Your task to perform on an android device: Open the phone app and click the voicemail tab. Image 0: 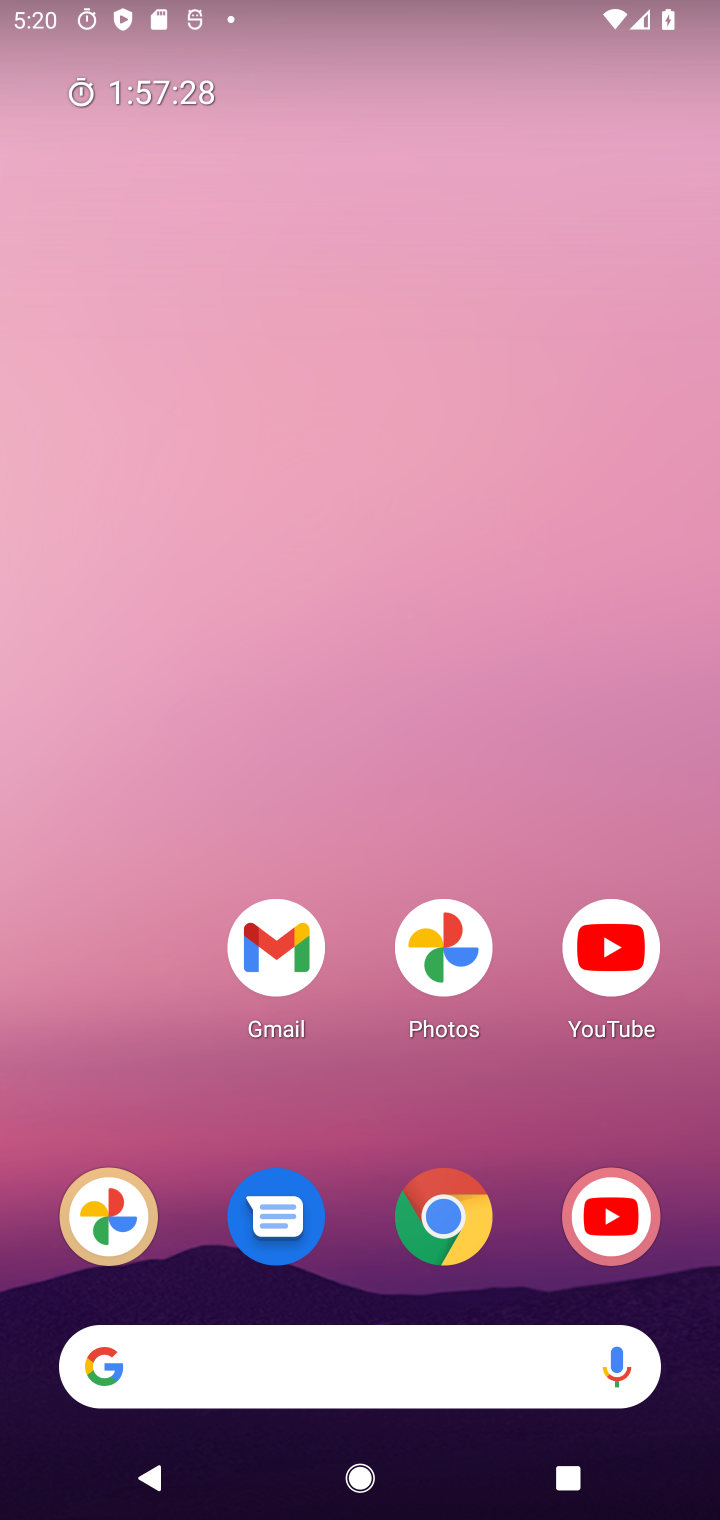
Step 0: drag from (184, 570) to (319, 182)
Your task to perform on an android device: Open the phone app and click the voicemail tab. Image 1: 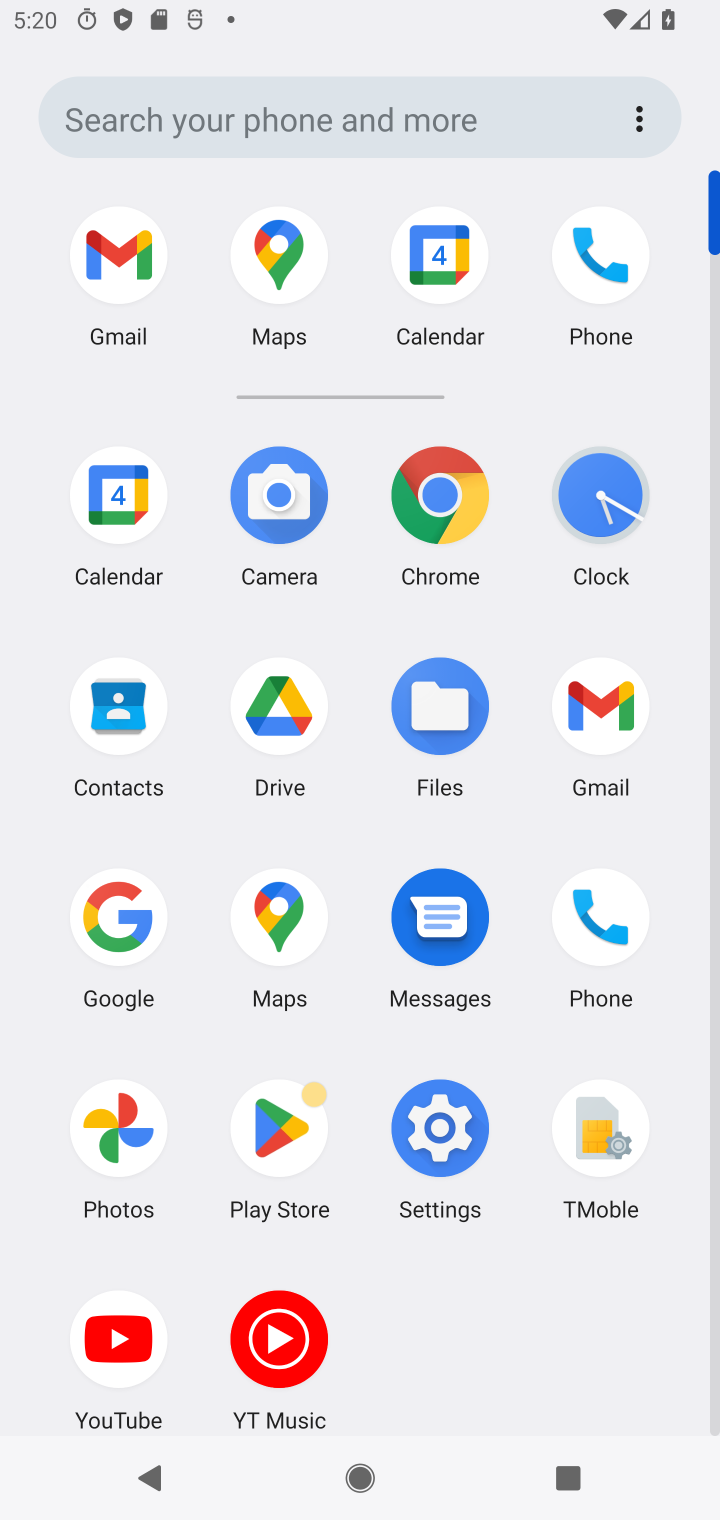
Step 1: click (589, 920)
Your task to perform on an android device: Open the phone app and click the voicemail tab. Image 2: 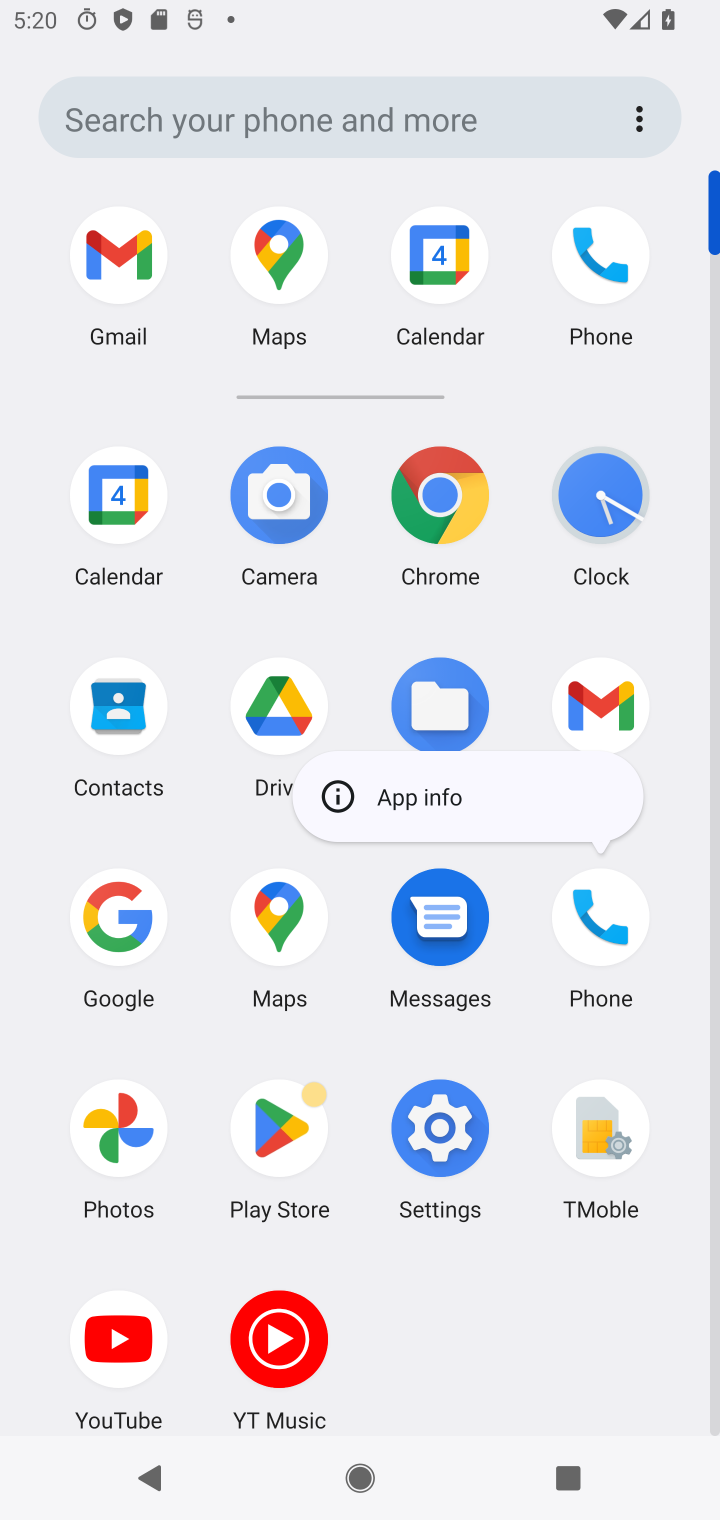
Step 2: click (595, 924)
Your task to perform on an android device: Open the phone app and click the voicemail tab. Image 3: 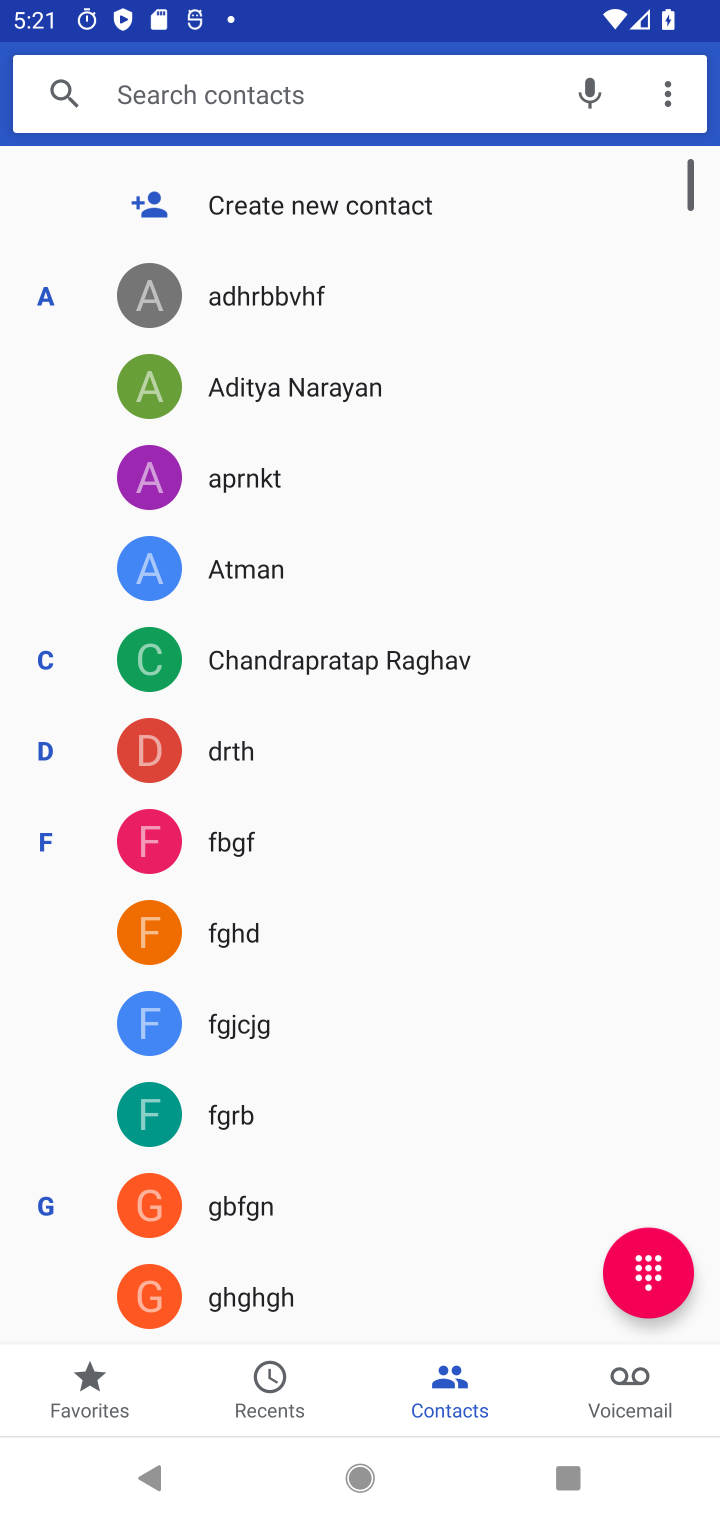
Step 3: click (620, 1397)
Your task to perform on an android device: Open the phone app and click the voicemail tab. Image 4: 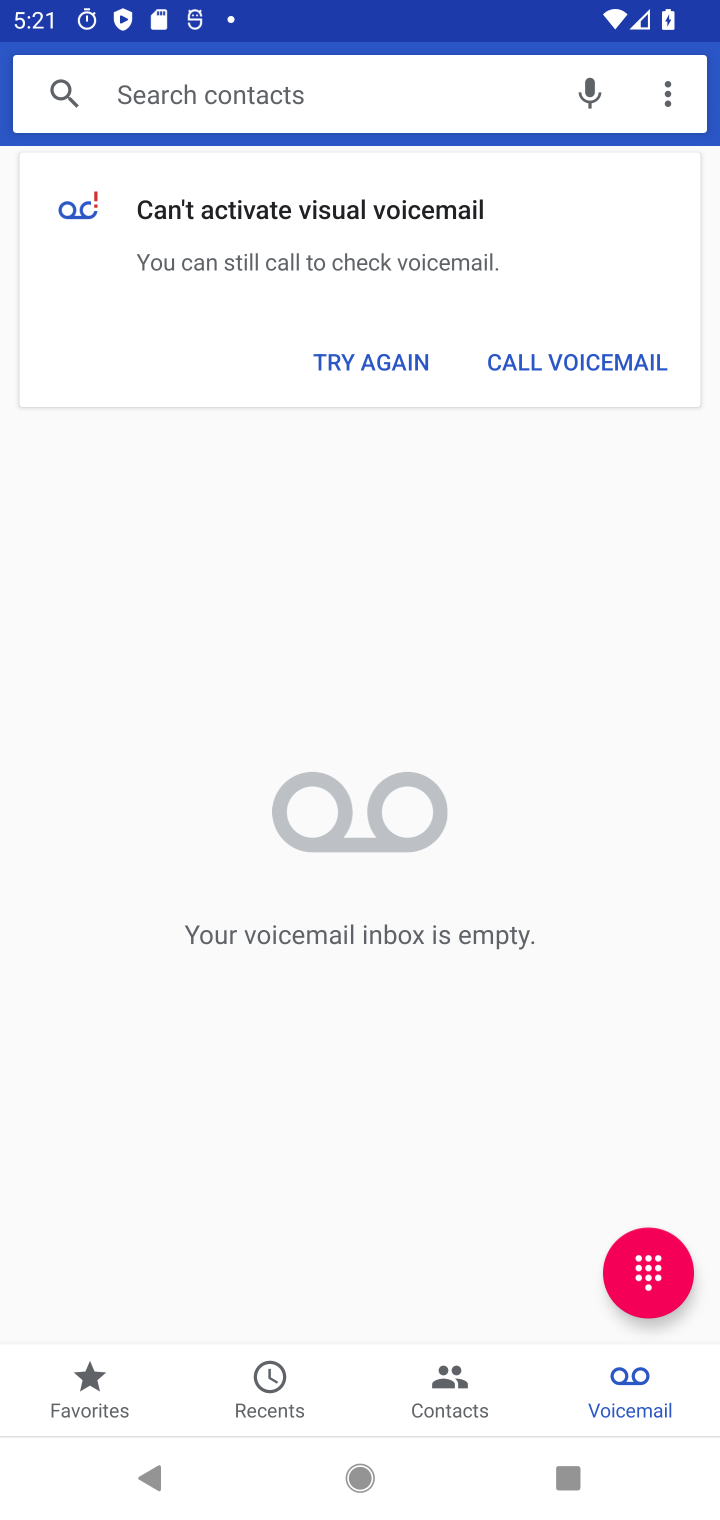
Step 4: task complete